Your task to perform on an android device: check battery use Image 0: 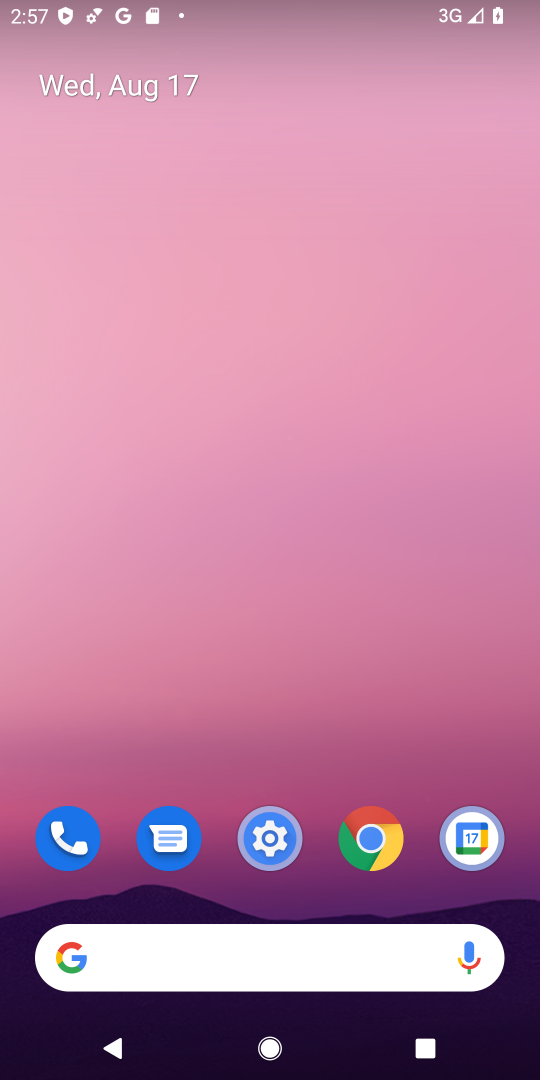
Step 0: click (275, 852)
Your task to perform on an android device: check battery use Image 1: 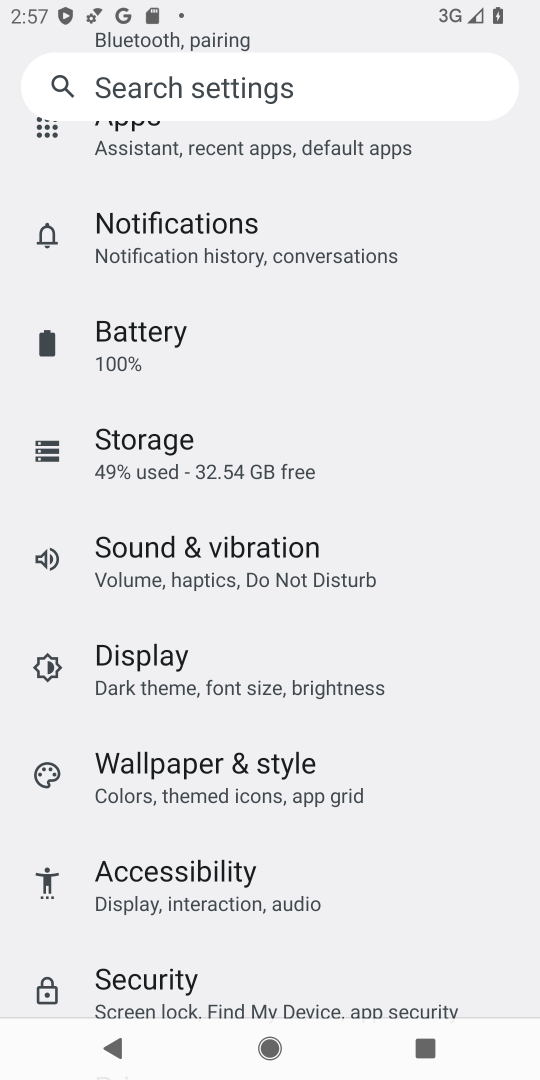
Step 1: click (153, 347)
Your task to perform on an android device: check battery use Image 2: 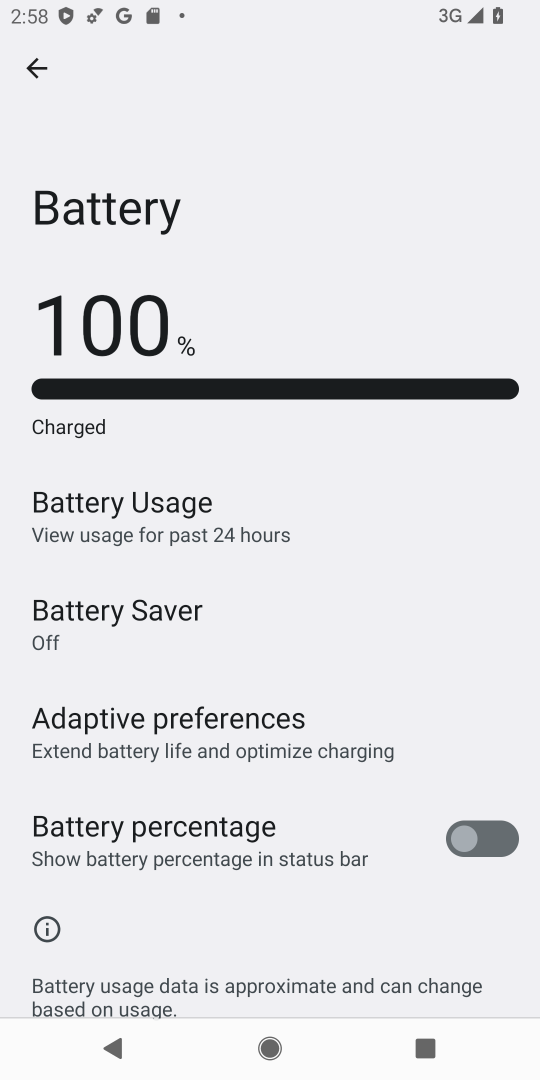
Step 2: click (263, 519)
Your task to perform on an android device: check battery use Image 3: 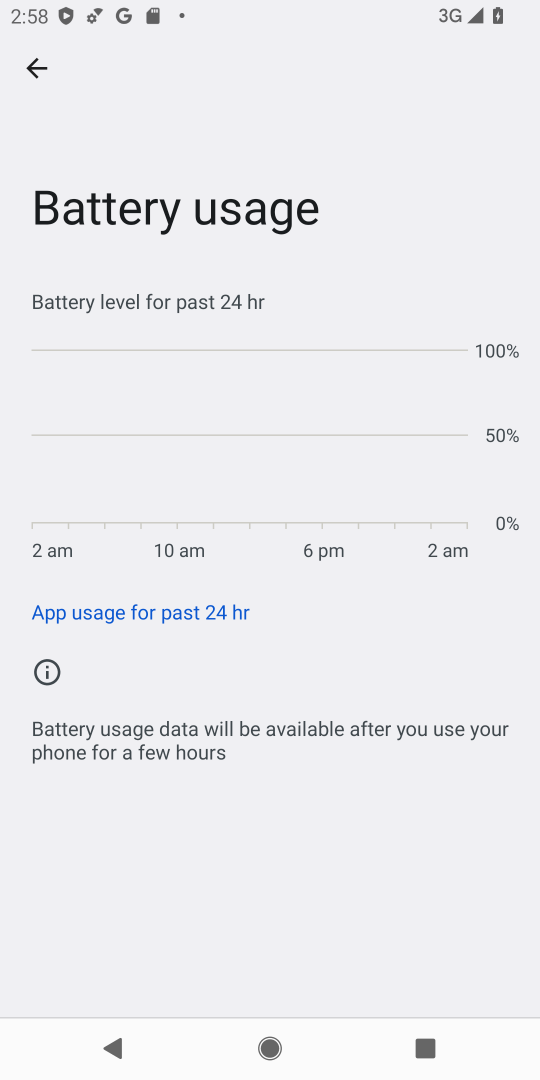
Step 3: task complete